Your task to perform on an android device: turn off javascript in the chrome app Image 0: 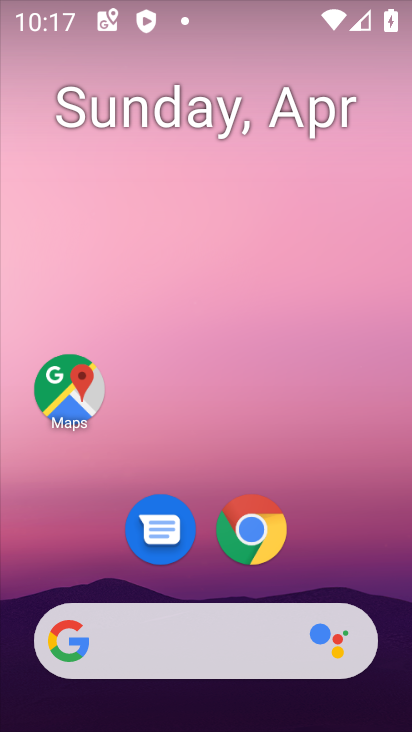
Step 0: click (254, 547)
Your task to perform on an android device: turn off javascript in the chrome app Image 1: 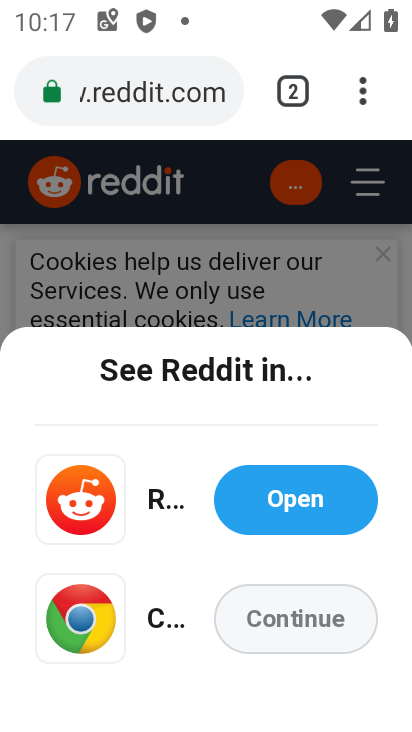
Step 1: click (363, 78)
Your task to perform on an android device: turn off javascript in the chrome app Image 2: 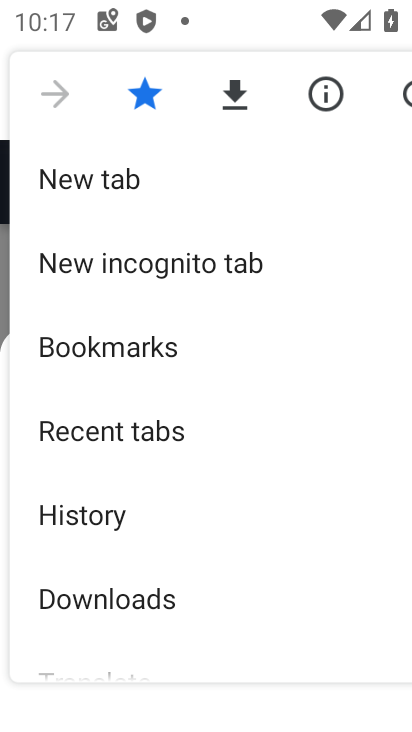
Step 2: drag from (191, 586) to (312, 193)
Your task to perform on an android device: turn off javascript in the chrome app Image 3: 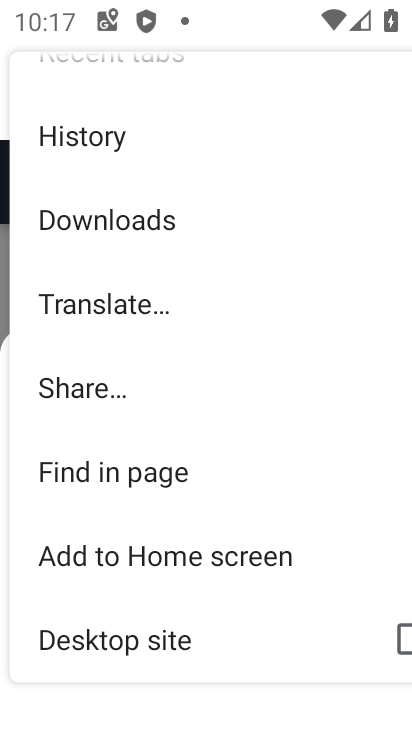
Step 3: drag from (204, 600) to (302, 154)
Your task to perform on an android device: turn off javascript in the chrome app Image 4: 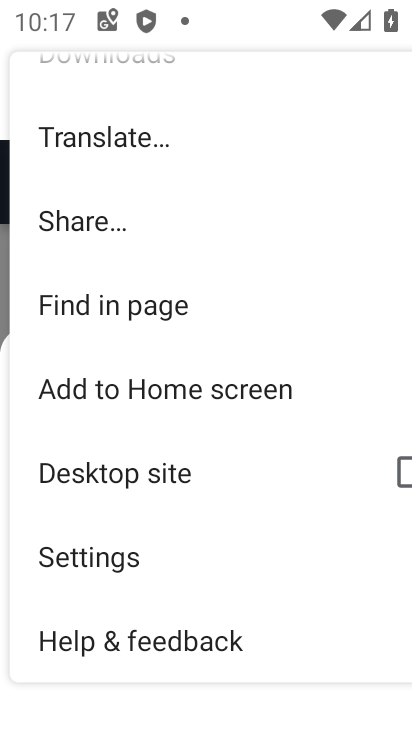
Step 4: click (124, 568)
Your task to perform on an android device: turn off javascript in the chrome app Image 5: 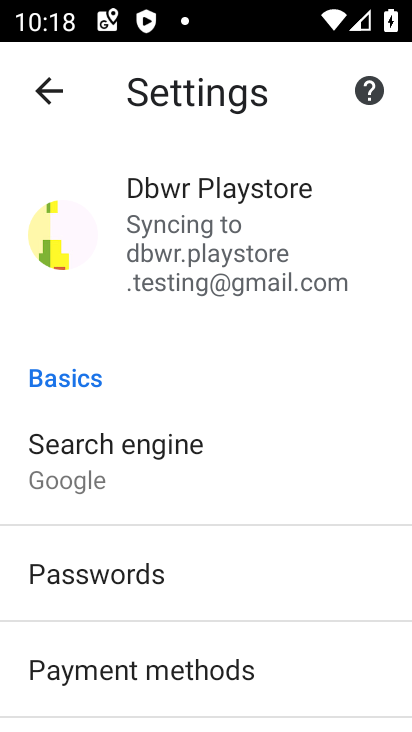
Step 5: drag from (234, 441) to (328, 85)
Your task to perform on an android device: turn off javascript in the chrome app Image 6: 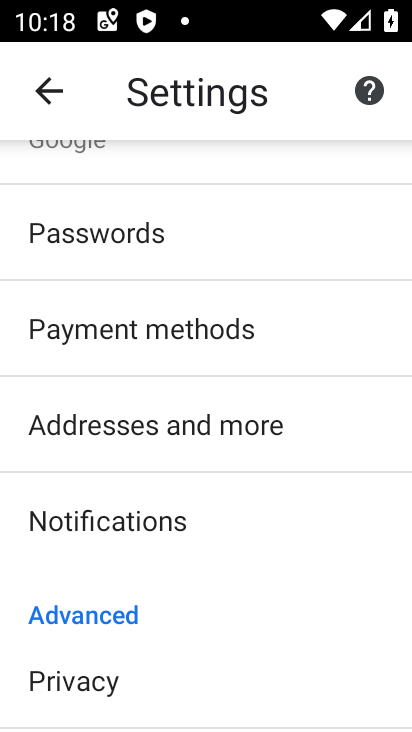
Step 6: drag from (238, 527) to (329, 143)
Your task to perform on an android device: turn off javascript in the chrome app Image 7: 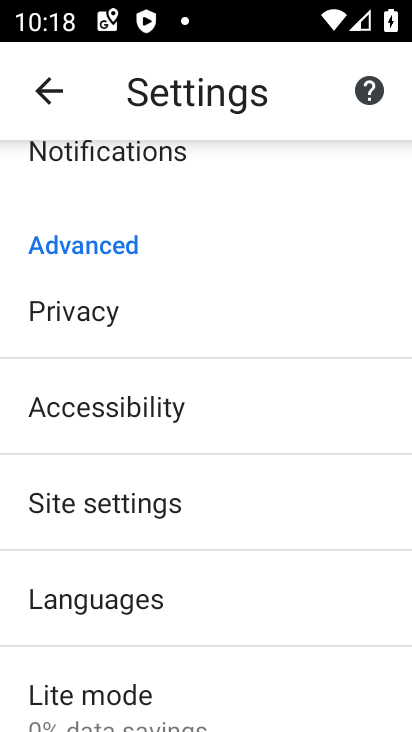
Step 7: click (173, 514)
Your task to perform on an android device: turn off javascript in the chrome app Image 8: 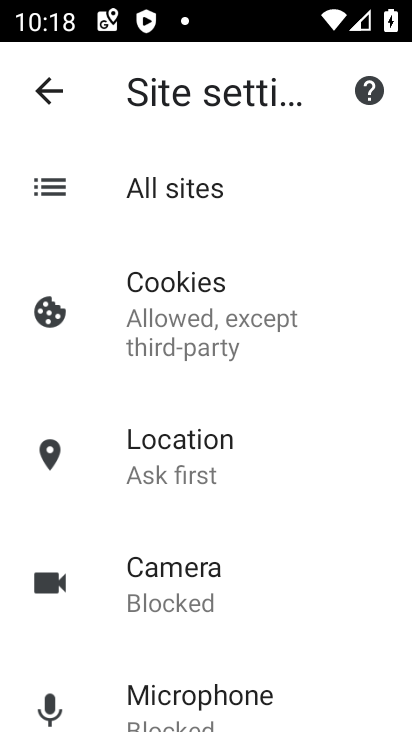
Step 8: drag from (218, 517) to (305, 175)
Your task to perform on an android device: turn off javascript in the chrome app Image 9: 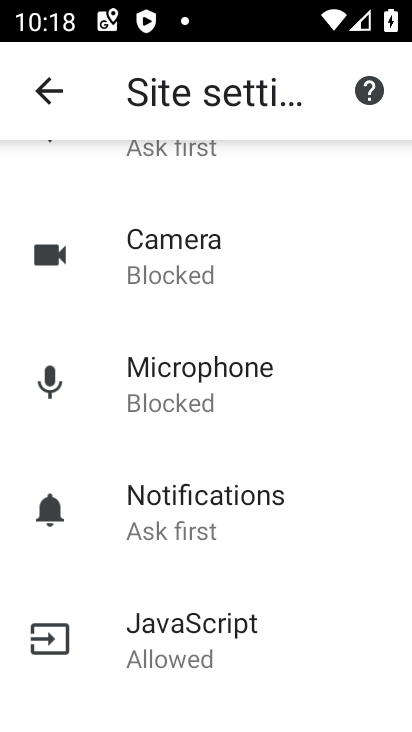
Step 9: click (214, 638)
Your task to perform on an android device: turn off javascript in the chrome app Image 10: 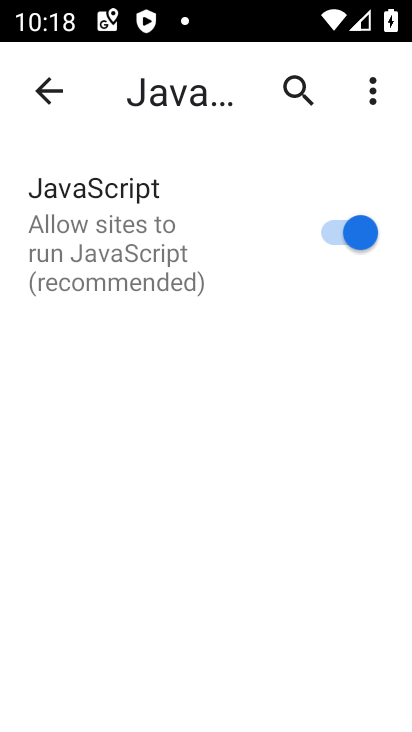
Step 10: click (329, 236)
Your task to perform on an android device: turn off javascript in the chrome app Image 11: 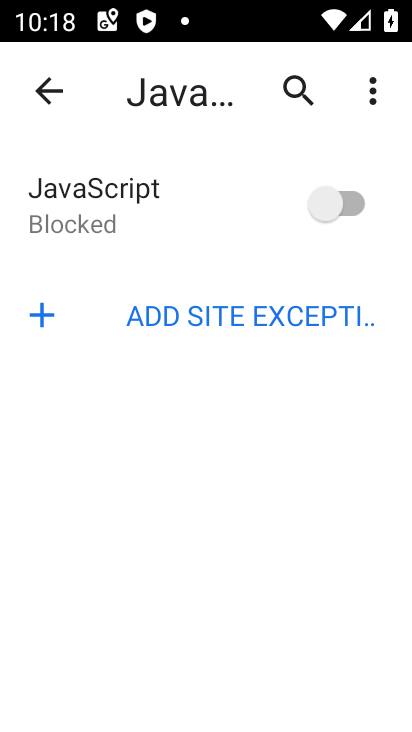
Step 11: task complete